Your task to perform on an android device: Go to Android settings Image 0: 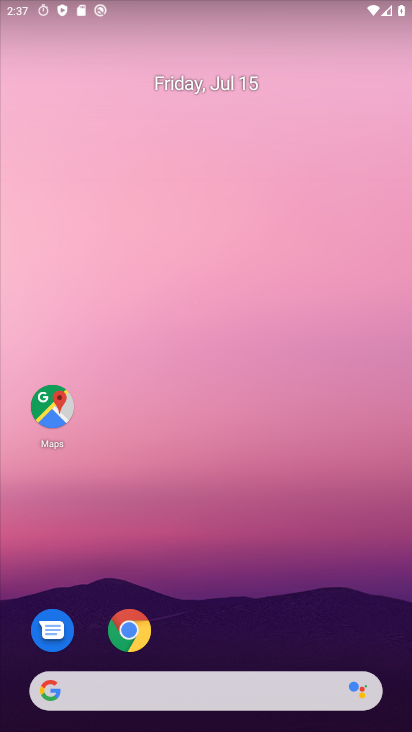
Step 0: drag from (299, 642) to (318, 174)
Your task to perform on an android device: Go to Android settings Image 1: 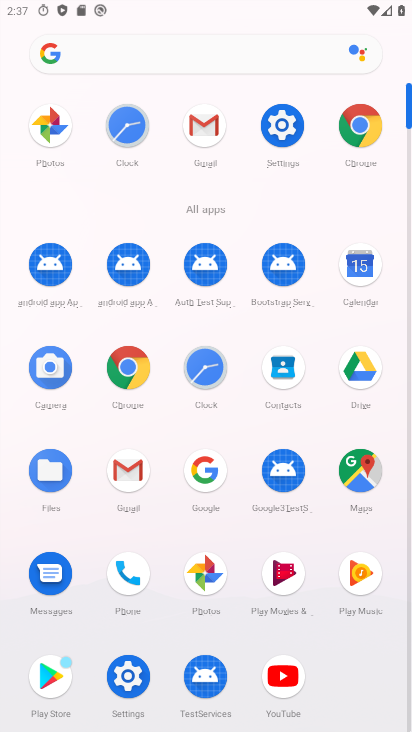
Step 1: click (285, 131)
Your task to perform on an android device: Go to Android settings Image 2: 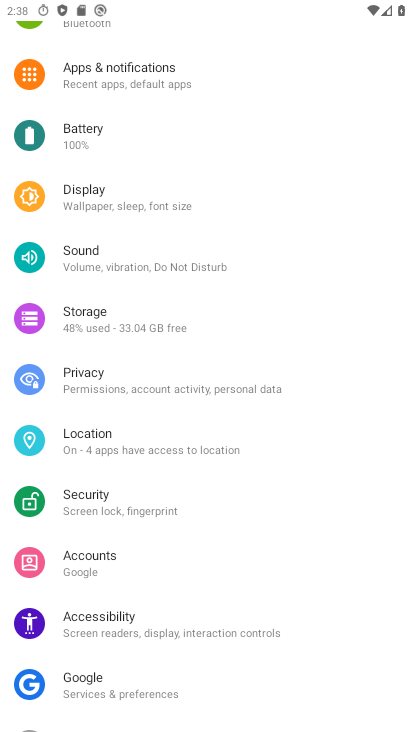
Step 2: drag from (128, 637) to (126, 169)
Your task to perform on an android device: Go to Android settings Image 3: 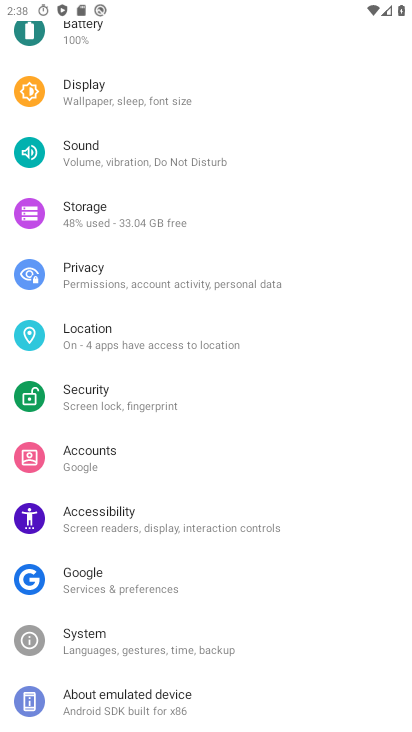
Step 3: click (109, 646)
Your task to perform on an android device: Go to Android settings Image 4: 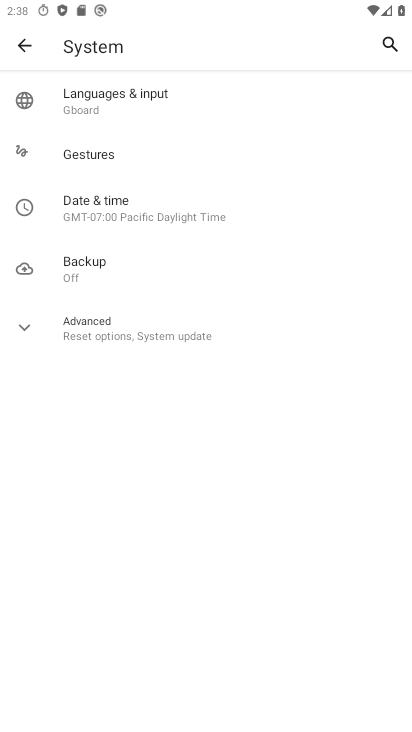
Step 4: task complete